Your task to perform on an android device: turn on javascript in the chrome app Image 0: 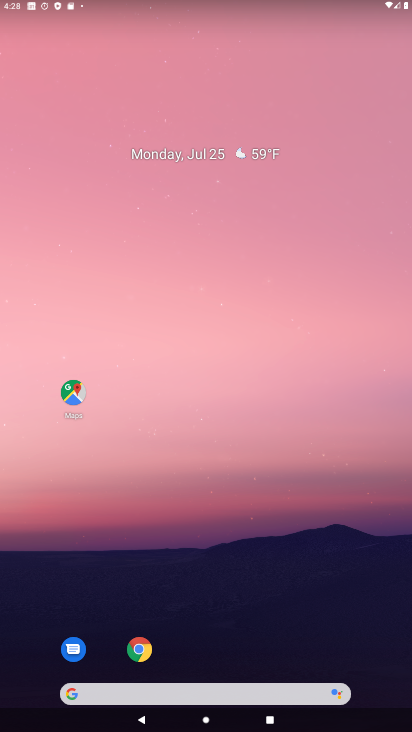
Step 0: drag from (295, 640) to (242, 135)
Your task to perform on an android device: turn on javascript in the chrome app Image 1: 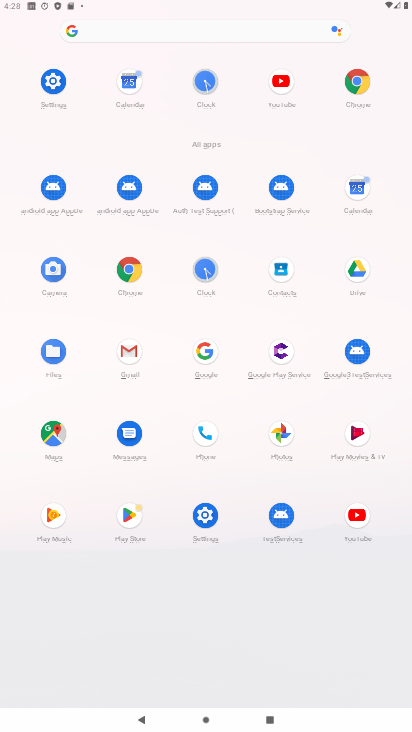
Step 1: click (362, 80)
Your task to perform on an android device: turn on javascript in the chrome app Image 2: 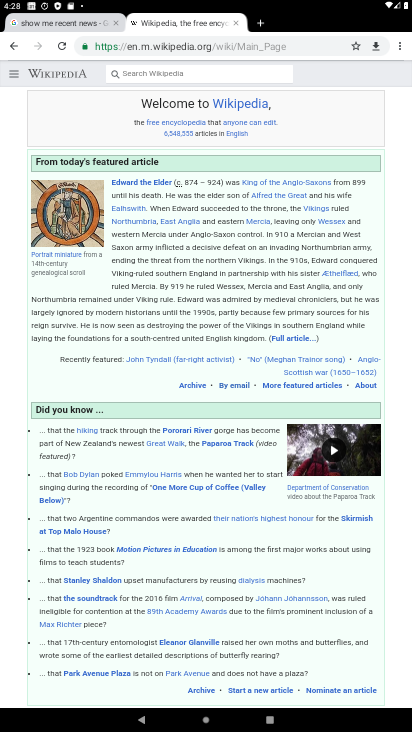
Step 2: click (401, 43)
Your task to perform on an android device: turn on javascript in the chrome app Image 3: 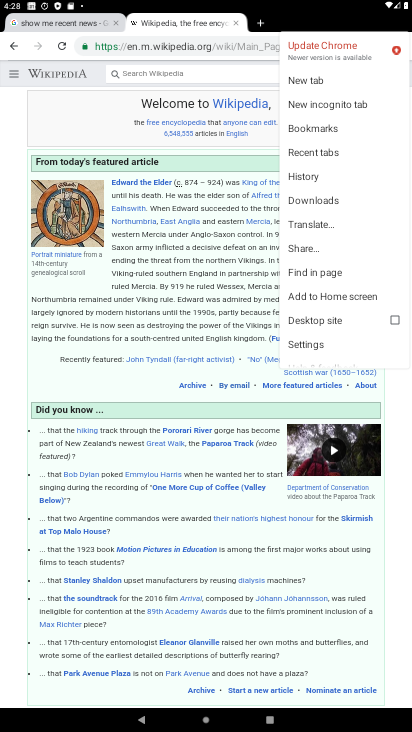
Step 3: click (342, 340)
Your task to perform on an android device: turn on javascript in the chrome app Image 4: 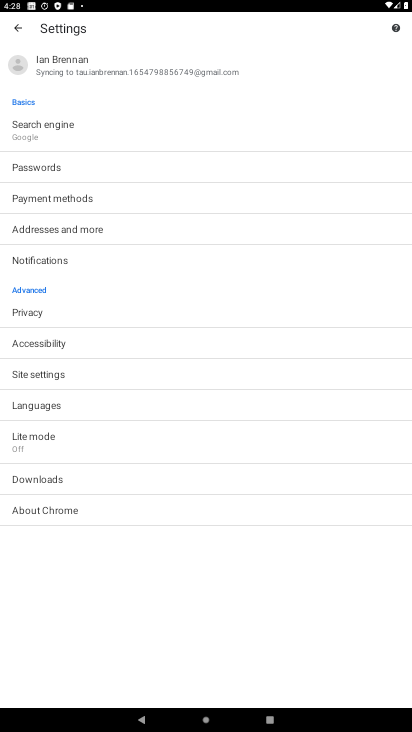
Step 4: click (65, 371)
Your task to perform on an android device: turn on javascript in the chrome app Image 5: 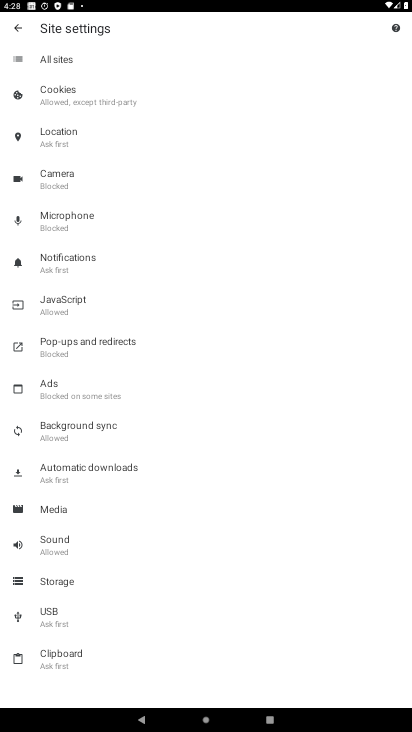
Step 5: click (133, 300)
Your task to perform on an android device: turn on javascript in the chrome app Image 6: 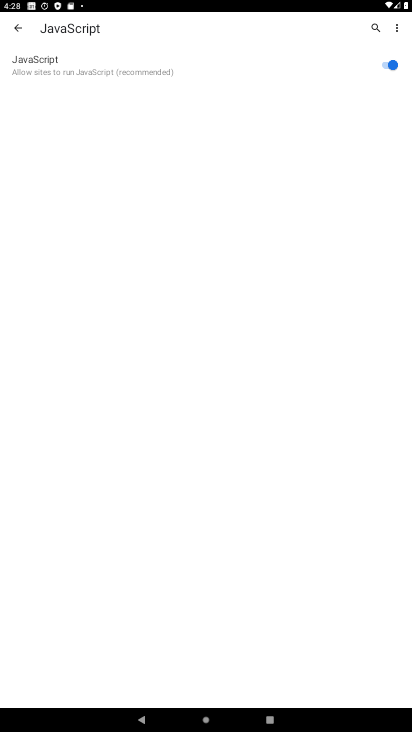
Step 6: task complete